Your task to perform on an android device: turn off notifications in google photos Image 0: 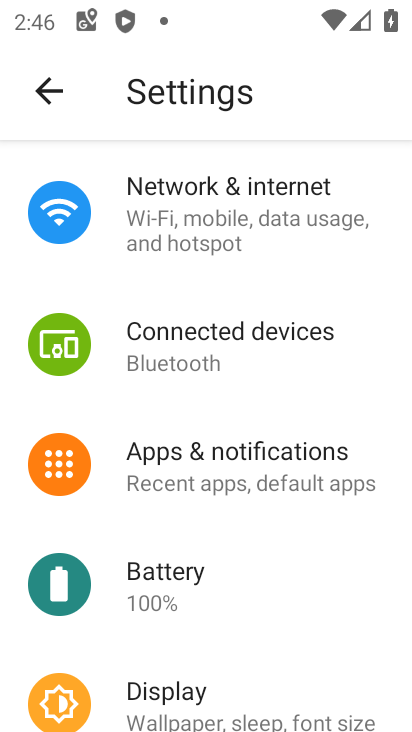
Step 0: press back button
Your task to perform on an android device: turn off notifications in google photos Image 1: 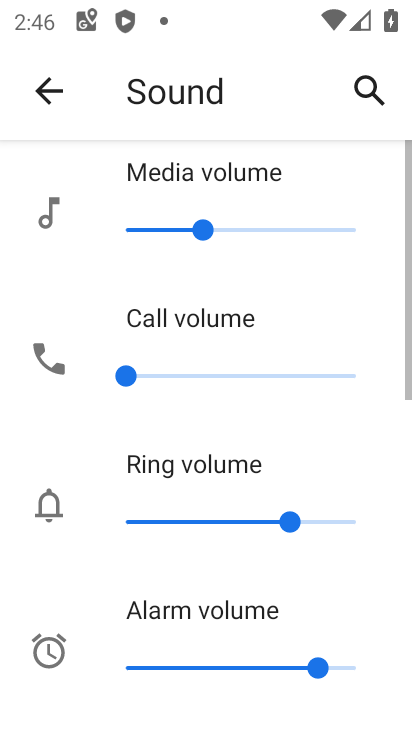
Step 1: press back button
Your task to perform on an android device: turn off notifications in google photos Image 2: 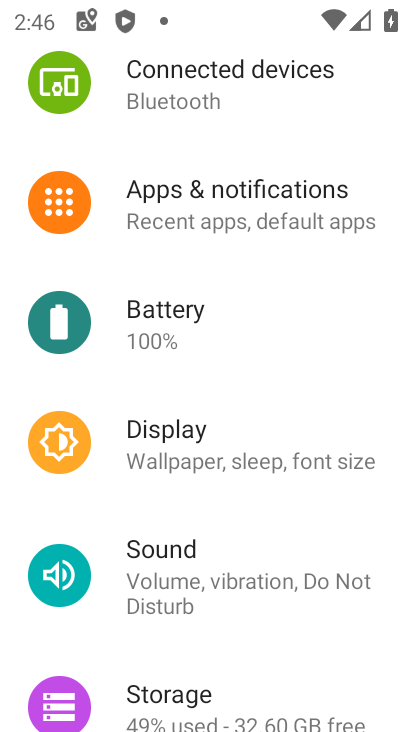
Step 2: press back button
Your task to perform on an android device: turn off notifications in google photos Image 3: 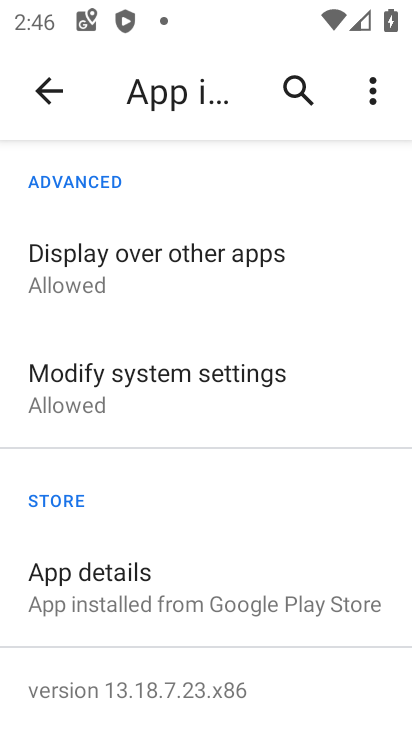
Step 3: press back button
Your task to perform on an android device: turn off notifications in google photos Image 4: 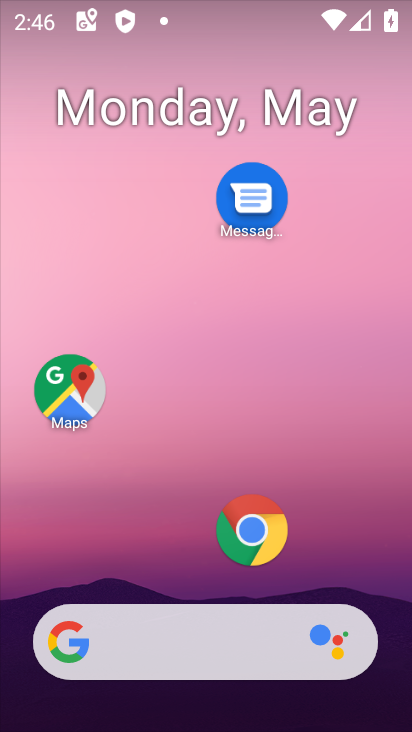
Step 4: drag from (173, 595) to (200, 174)
Your task to perform on an android device: turn off notifications in google photos Image 5: 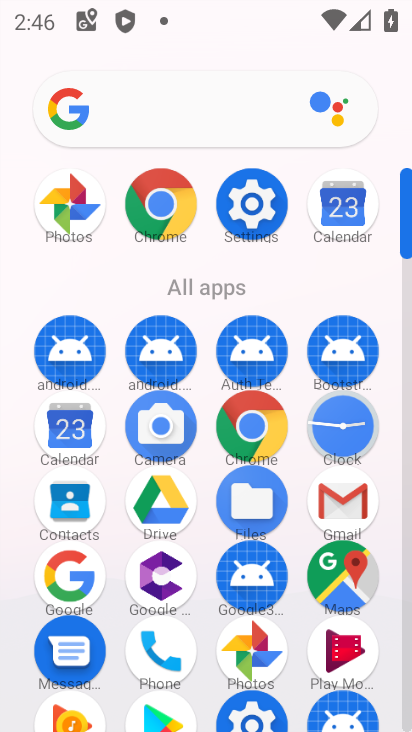
Step 5: click (255, 643)
Your task to perform on an android device: turn off notifications in google photos Image 6: 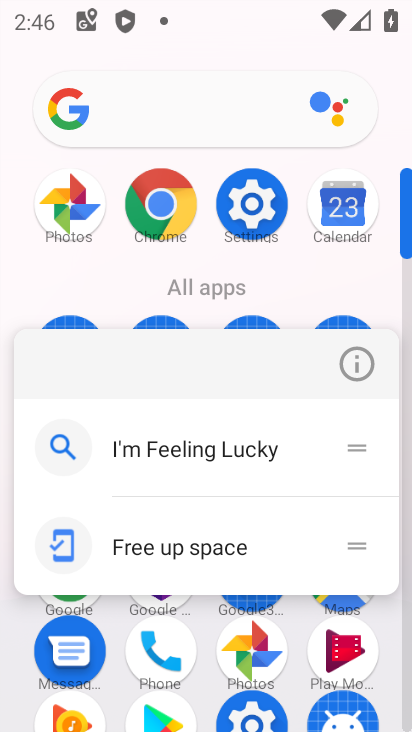
Step 6: click (361, 369)
Your task to perform on an android device: turn off notifications in google photos Image 7: 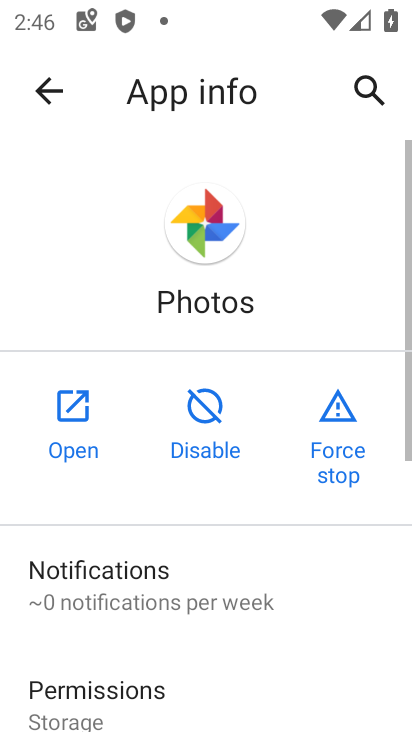
Step 7: click (105, 604)
Your task to perform on an android device: turn off notifications in google photos Image 8: 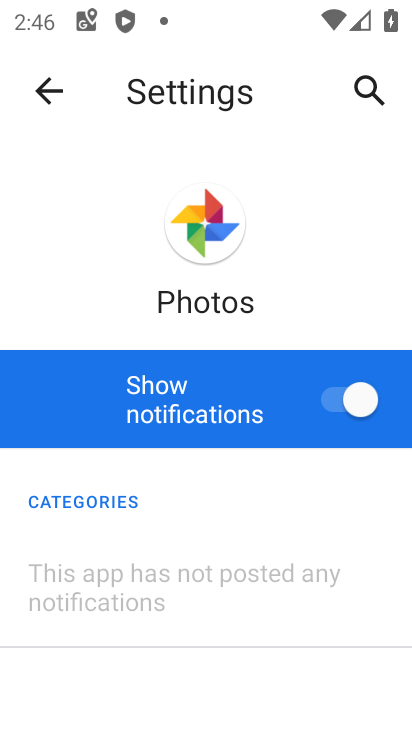
Step 8: click (339, 375)
Your task to perform on an android device: turn off notifications in google photos Image 9: 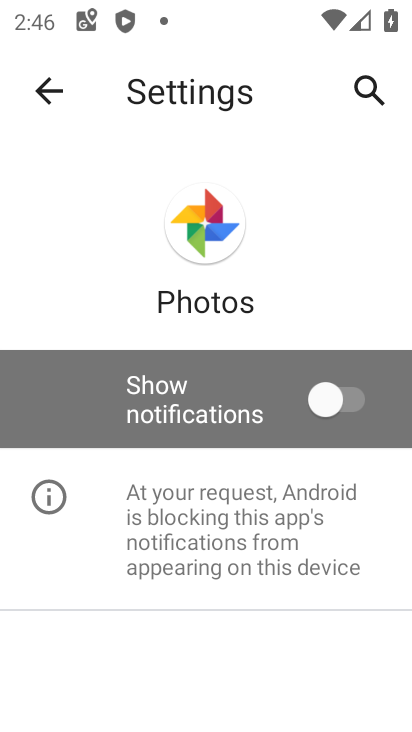
Step 9: task complete